Your task to perform on an android device: delete a single message in the gmail app Image 0: 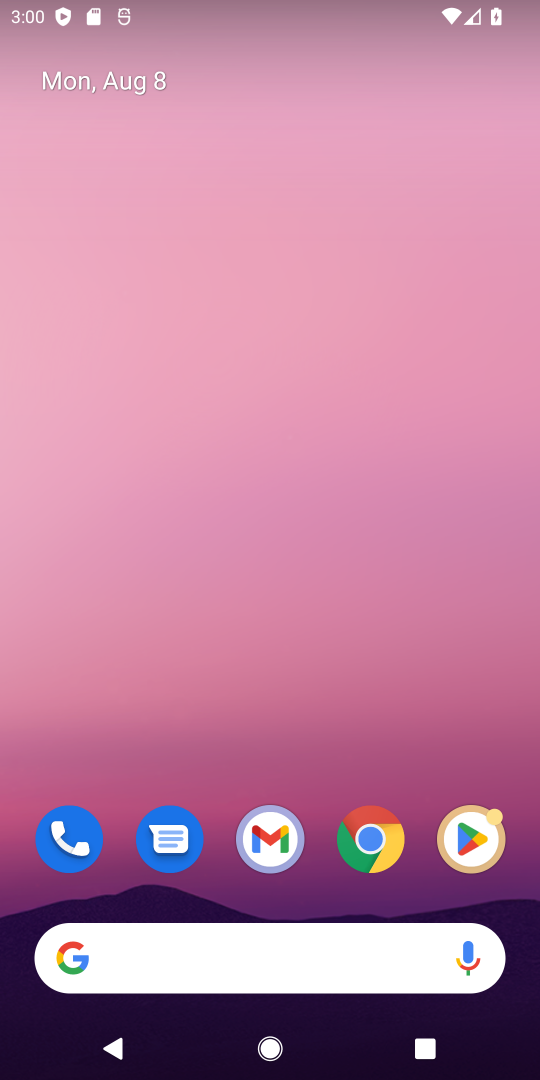
Step 0: drag from (325, 900) to (276, 17)
Your task to perform on an android device: delete a single message in the gmail app Image 1: 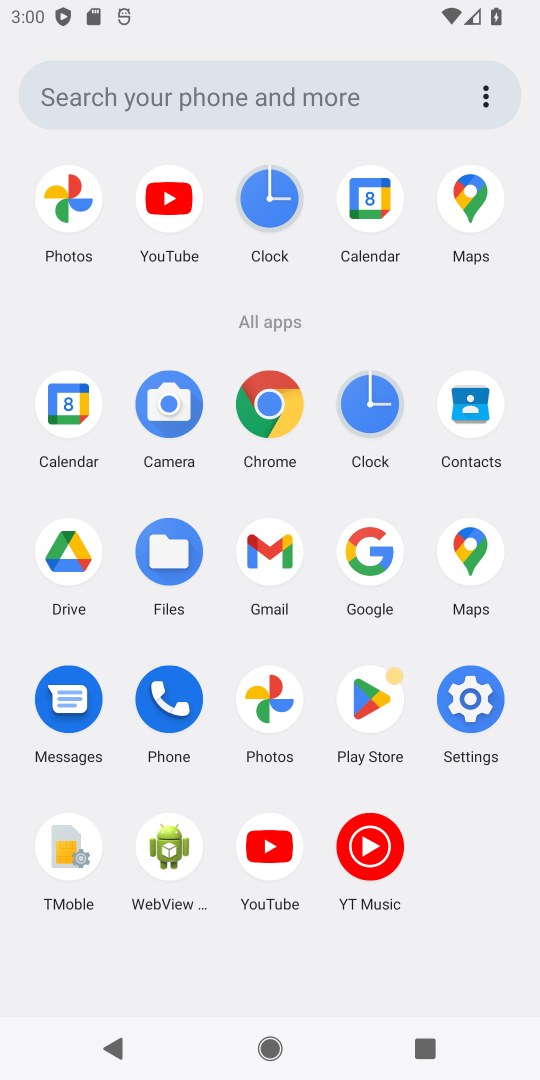
Step 1: click (265, 536)
Your task to perform on an android device: delete a single message in the gmail app Image 2: 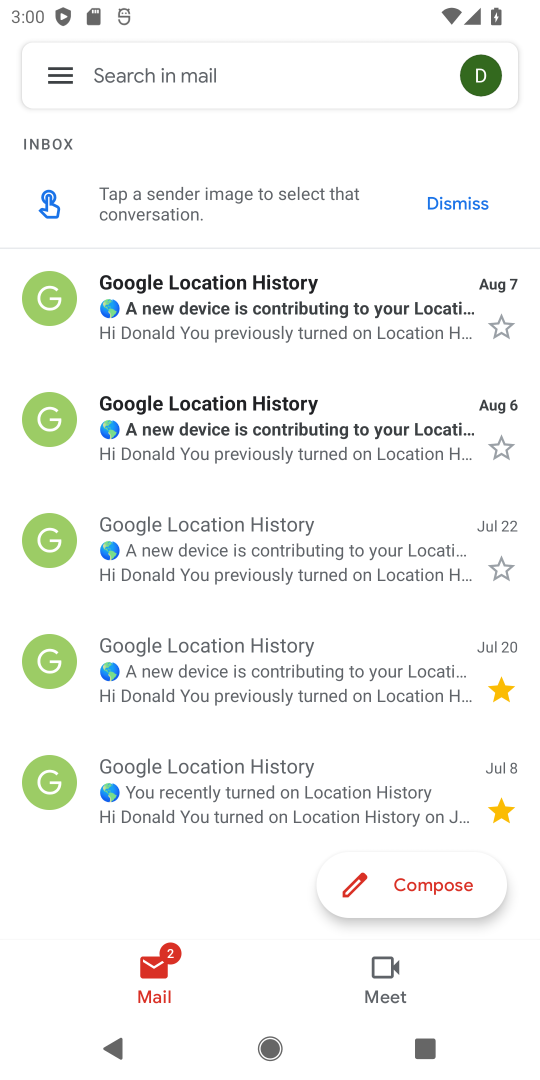
Step 2: click (251, 317)
Your task to perform on an android device: delete a single message in the gmail app Image 3: 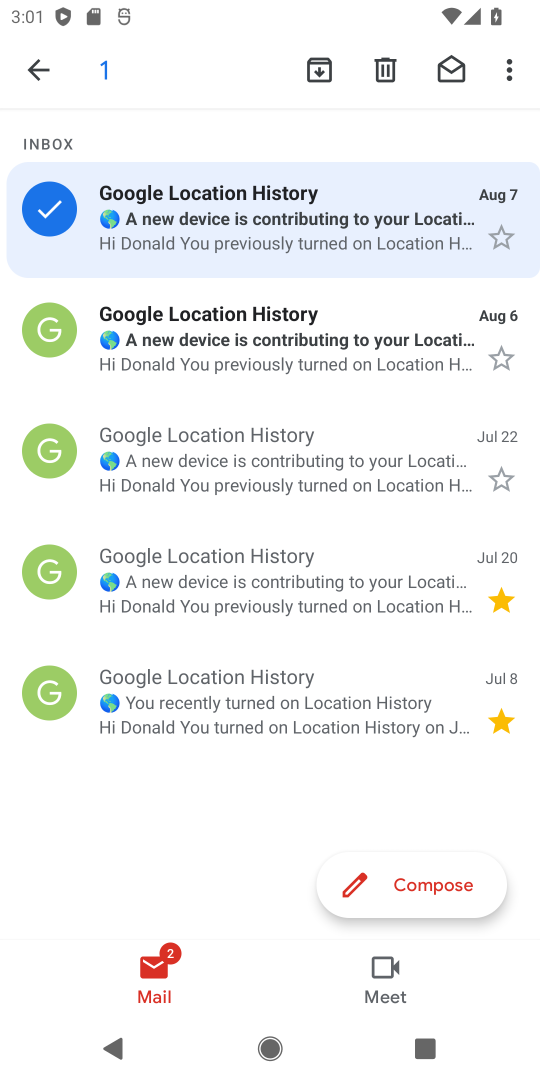
Step 3: click (379, 66)
Your task to perform on an android device: delete a single message in the gmail app Image 4: 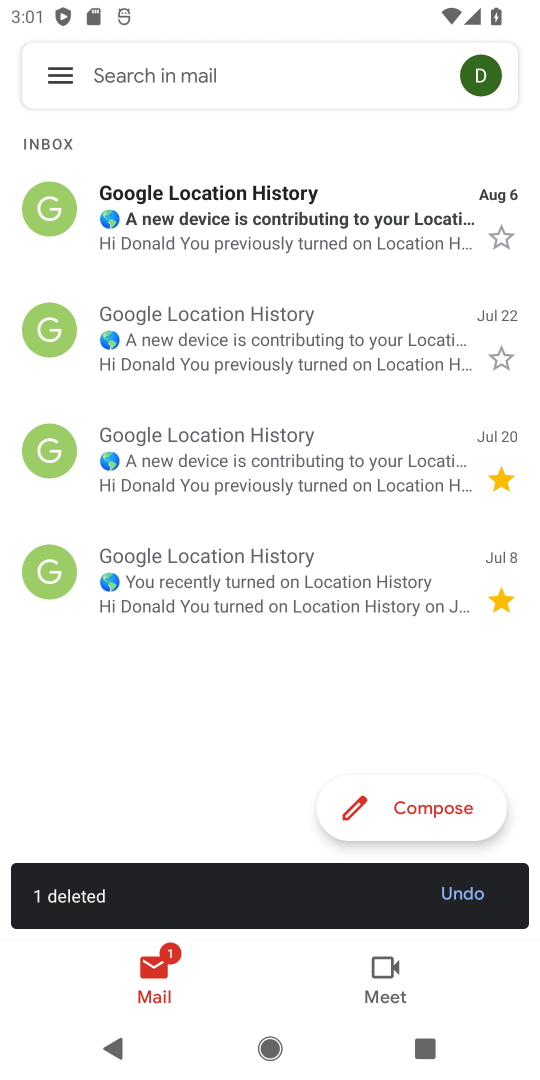
Step 4: task complete